Your task to perform on an android device: Turn off the flashlight Image 0: 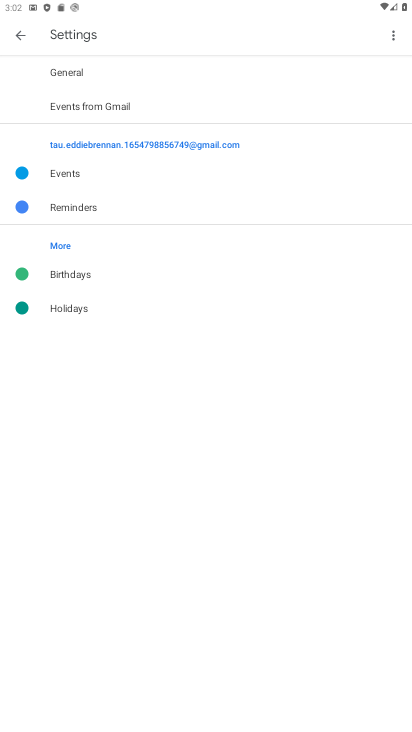
Step 0: press home button
Your task to perform on an android device: Turn off the flashlight Image 1: 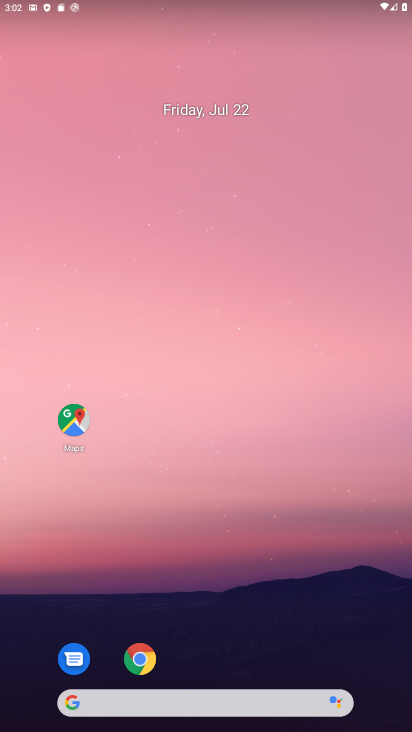
Step 1: drag from (189, 646) to (188, 177)
Your task to perform on an android device: Turn off the flashlight Image 2: 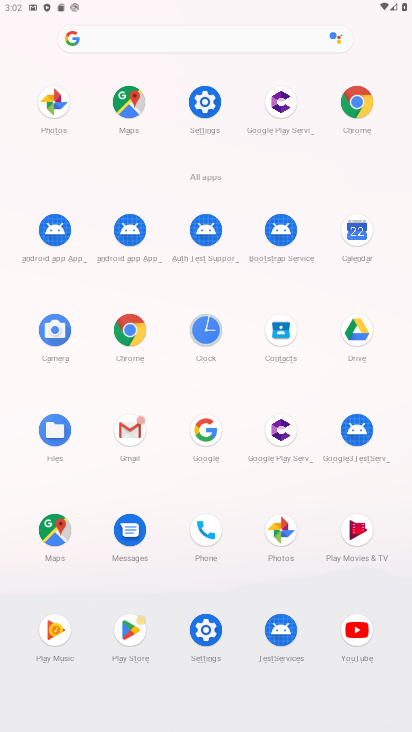
Step 2: click (204, 109)
Your task to perform on an android device: Turn off the flashlight Image 3: 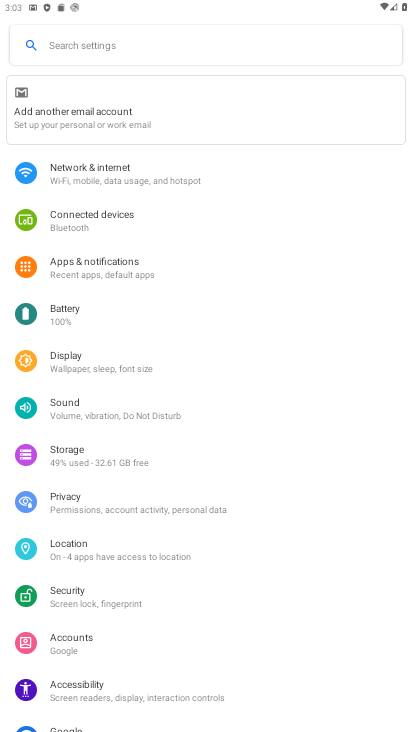
Step 3: task complete